Your task to perform on an android device: Open privacy settings Image 0: 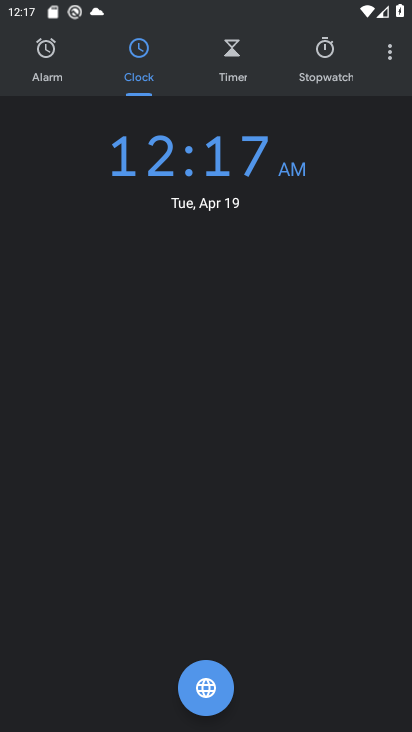
Step 0: press home button
Your task to perform on an android device: Open privacy settings Image 1: 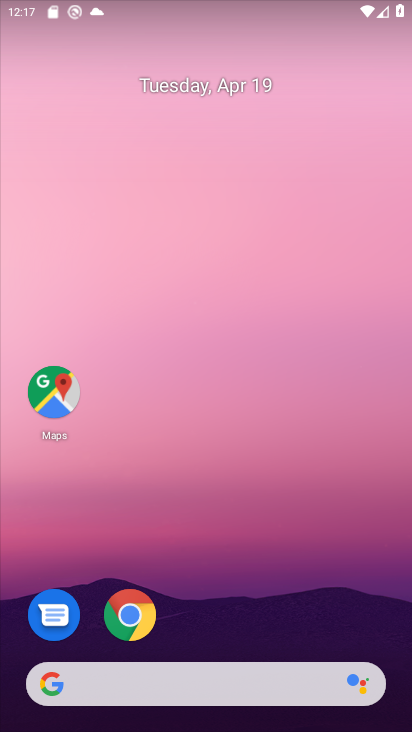
Step 1: drag from (203, 658) to (269, 369)
Your task to perform on an android device: Open privacy settings Image 2: 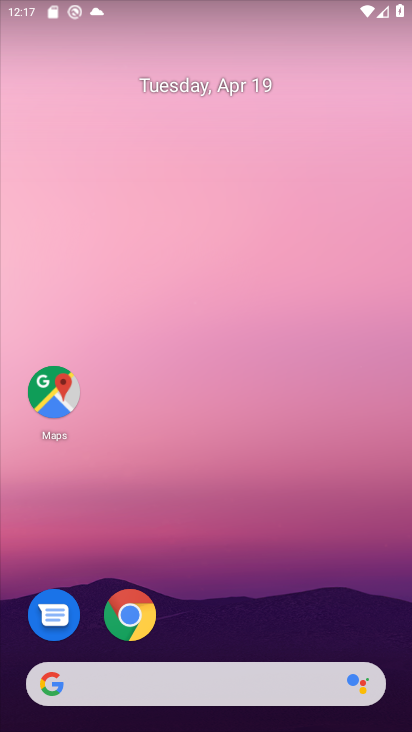
Step 2: drag from (253, 661) to (274, 336)
Your task to perform on an android device: Open privacy settings Image 3: 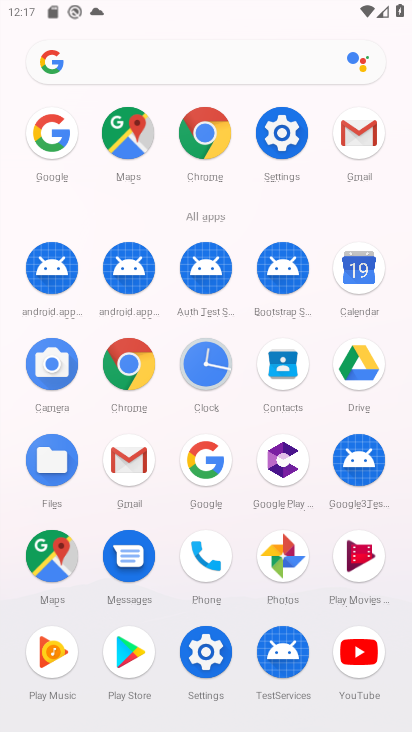
Step 3: click (277, 126)
Your task to perform on an android device: Open privacy settings Image 4: 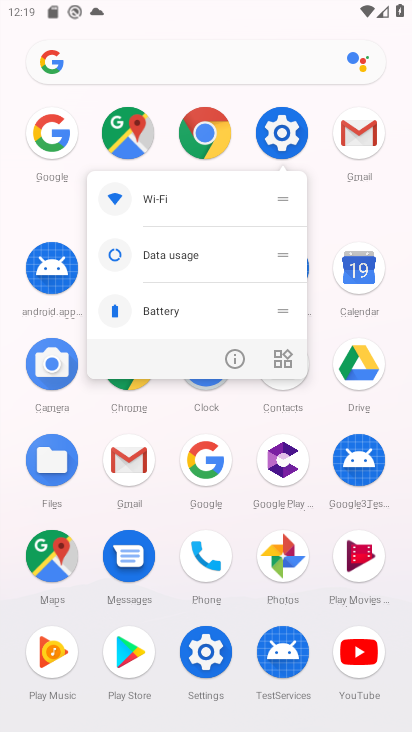
Step 4: click (283, 139)
Your task to perform on an android device: Open privacy settings Image 5: 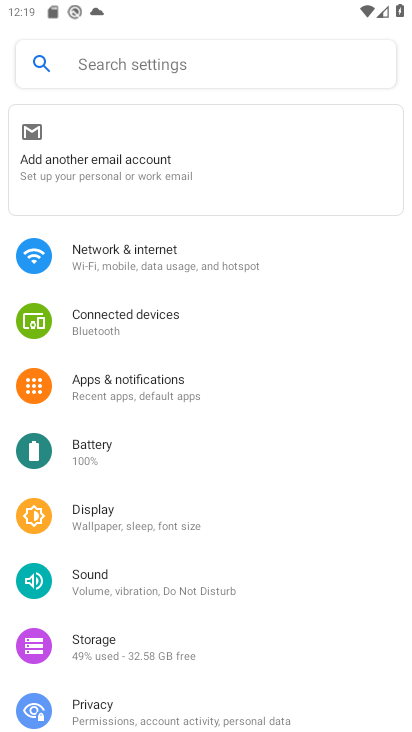
Step 5: click (115, 715)
Your task to perform on an android device: Open privacy settings Image 6: 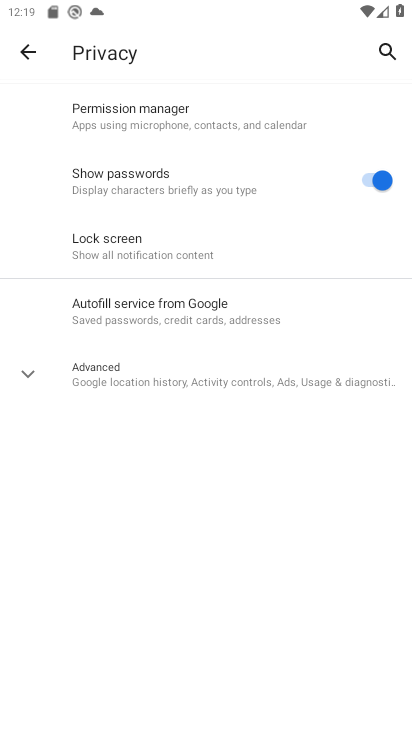
Step 6: click (218, 387)
Your task to perform on an android device: Open privacy settings Image 7: 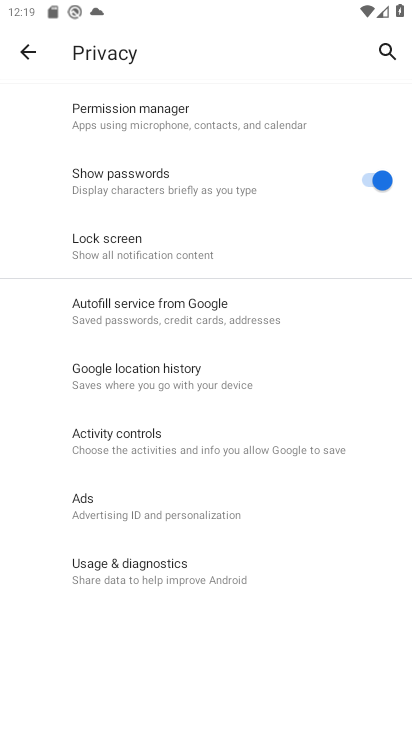
Step 7: task complete